Your task to perform on an android device: What's the weather going to be tomorrow? Image 0: 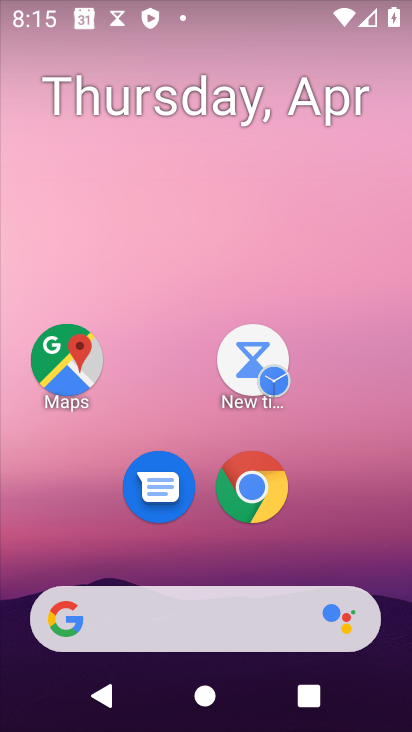
Step 0: click (261, 491)
Your task to perform on an android device: What's the weather going to be tomorrow? Image 1: 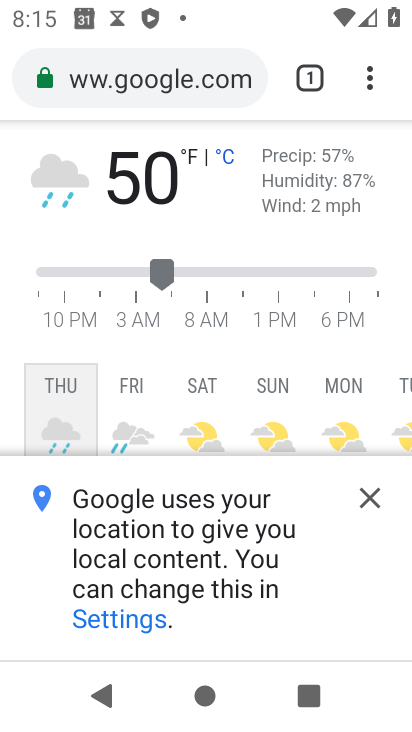
Step 1: click (308, 72)
Your task to perform on an android device: What's the weather going to be tomorrow? Image 2: 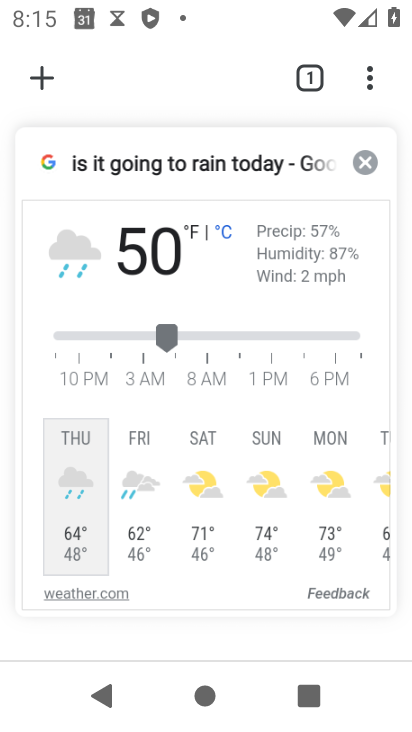
Step 2: click (39, 70)
Your task to perform on an android device: What's the weather going to be tomorrow? Image 3: 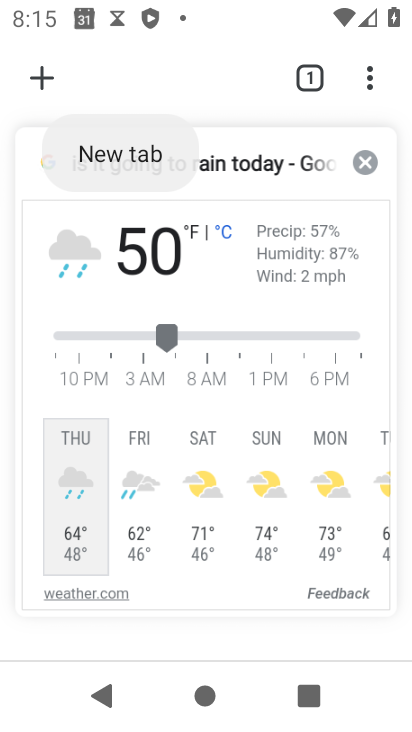
Step 3: click (44, 75)
Your task to perform on an android device: What's the weather going to be tomorrow? Image 4: 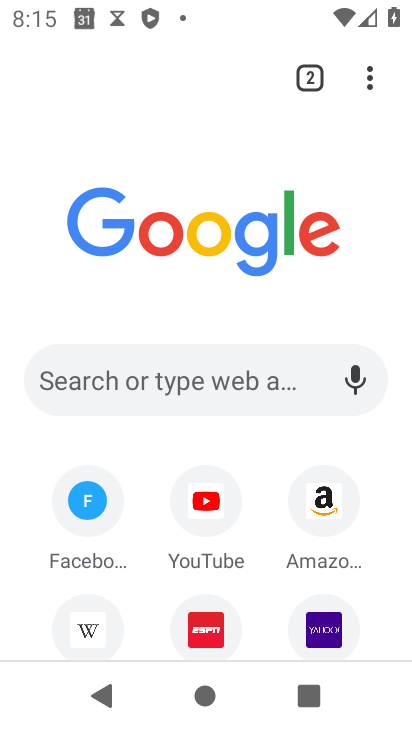
Step 4: click (138, 383)
Your task to perform on an android device: What's the weather going to be tomorrow? Image 5: 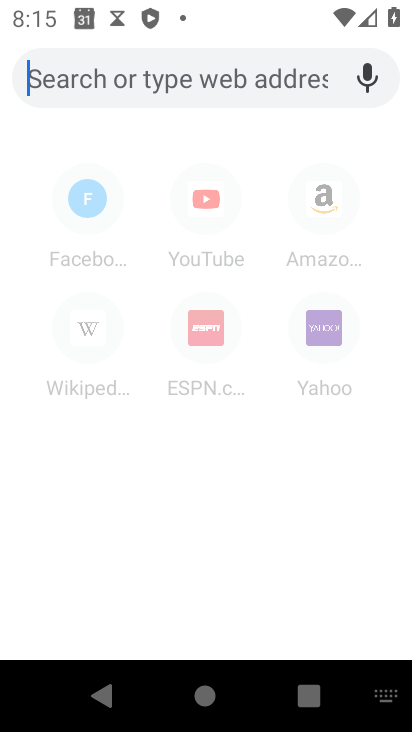
Step 5: click (97, 86)
Your task to perform on an android device: What's the weather going to be tomorrow? Image 6: 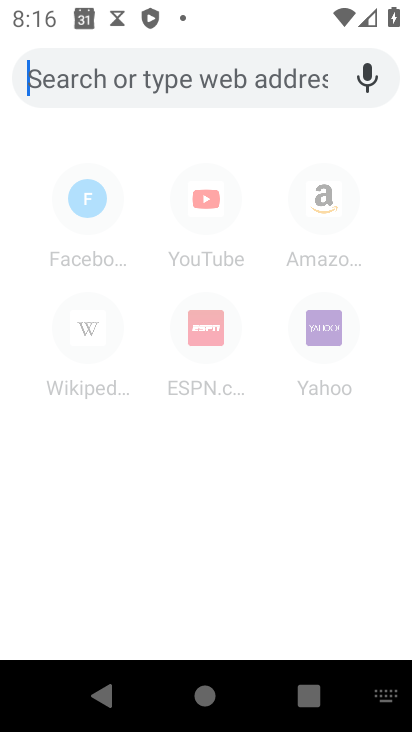
Step 6: type "whats the weather going to be tomorrow"
Your task to perform on an android device: What's the weather going to be tomorrow? Image 7: 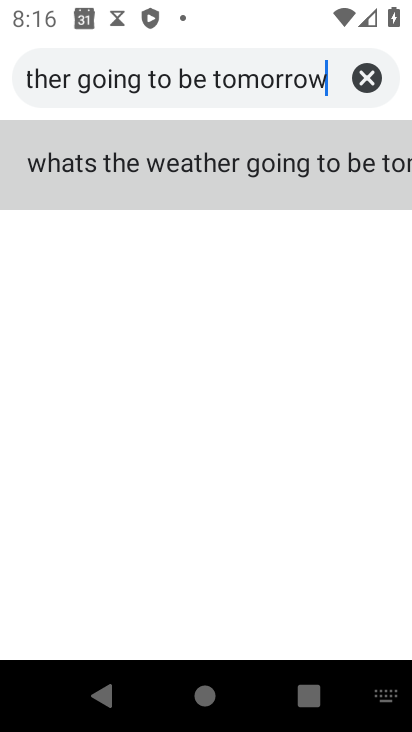
Step 7: click (222, 152)
Your task to perform on an android device: What's the weather going to be tomorrow? Image 8: 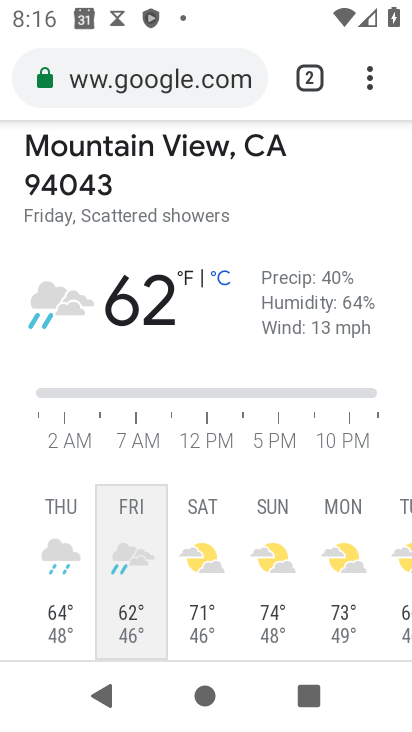
Step 8: task complete